Your task to perform on an android device: turn vacation reply on in the gmail app Image 0: 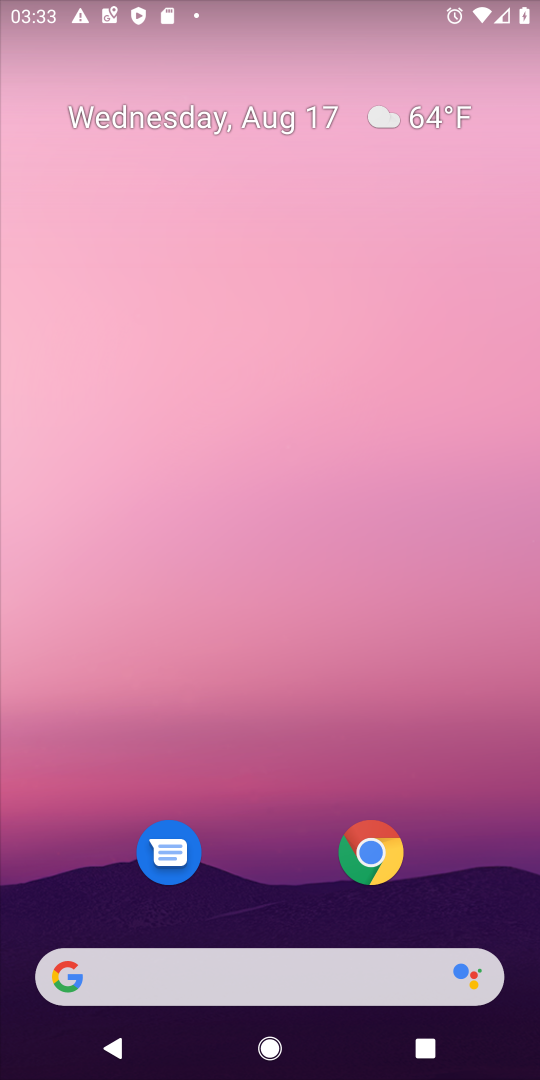
Step 0: drag from (258, 794) to (353, 97)
Your task to perform on an android device: turn vacation reply on in the gmail app Image 1: 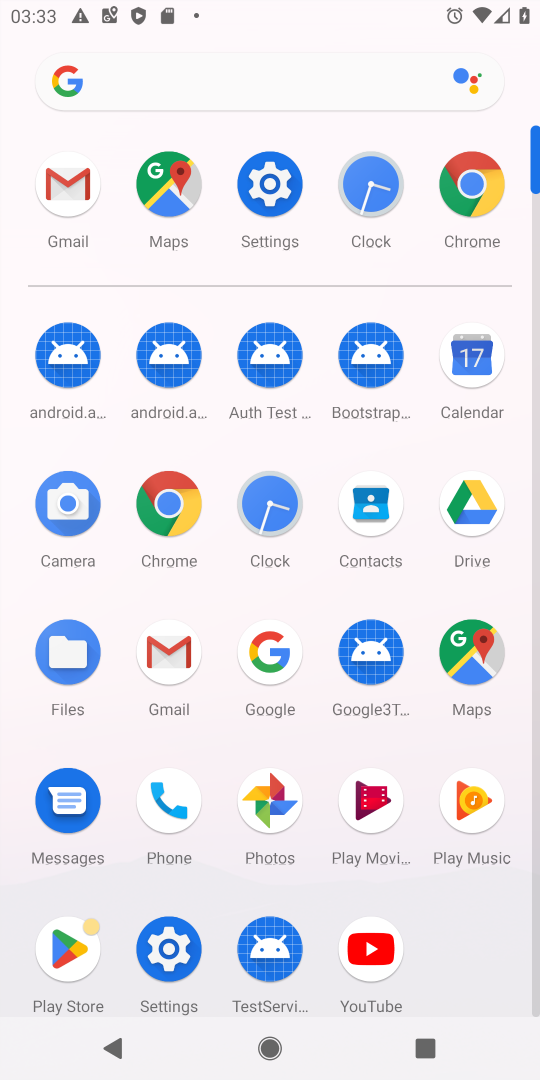
Step 1: click (171, 648)
Your task to perform on an android device: turn vacation reply on in the gmail app Image 2: 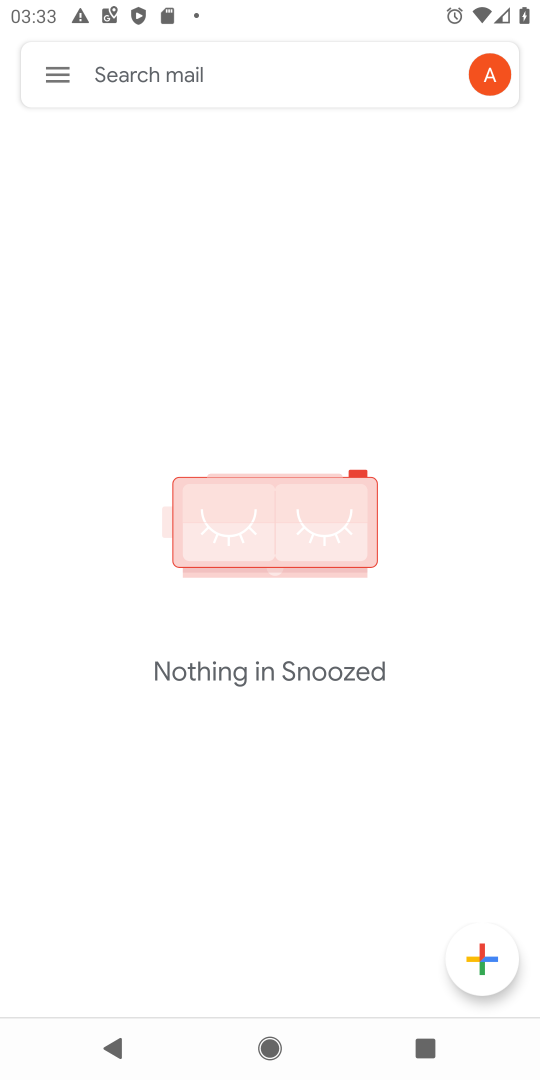
Step 2: click (52, 62)
Your task to perform on an android device: turn vacation reply on in the gmail app Image 3: 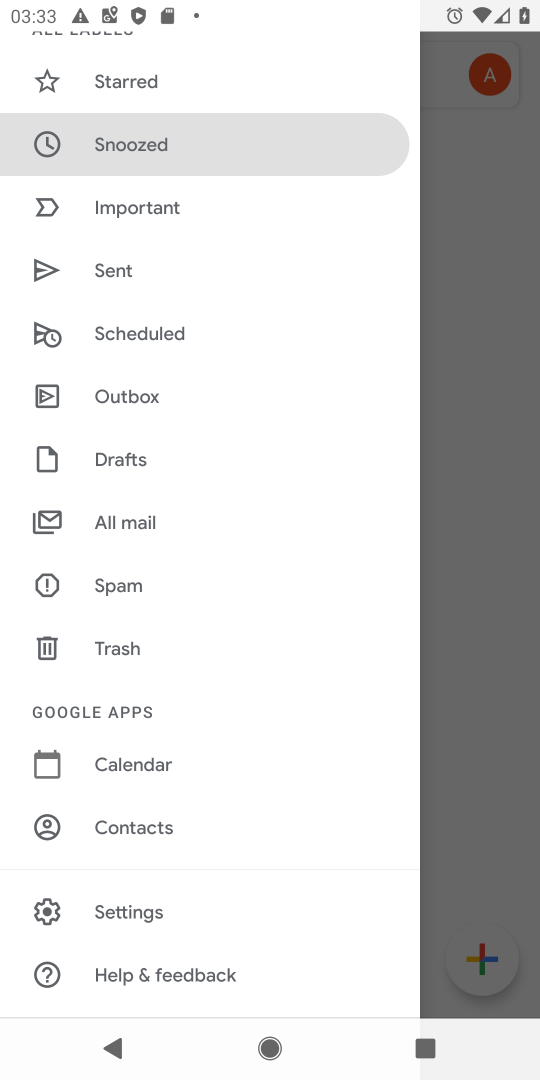
Step 3: click (112, 899)
Your task to perform on an android device: turn vacation reply on in the gmail app Image 4: 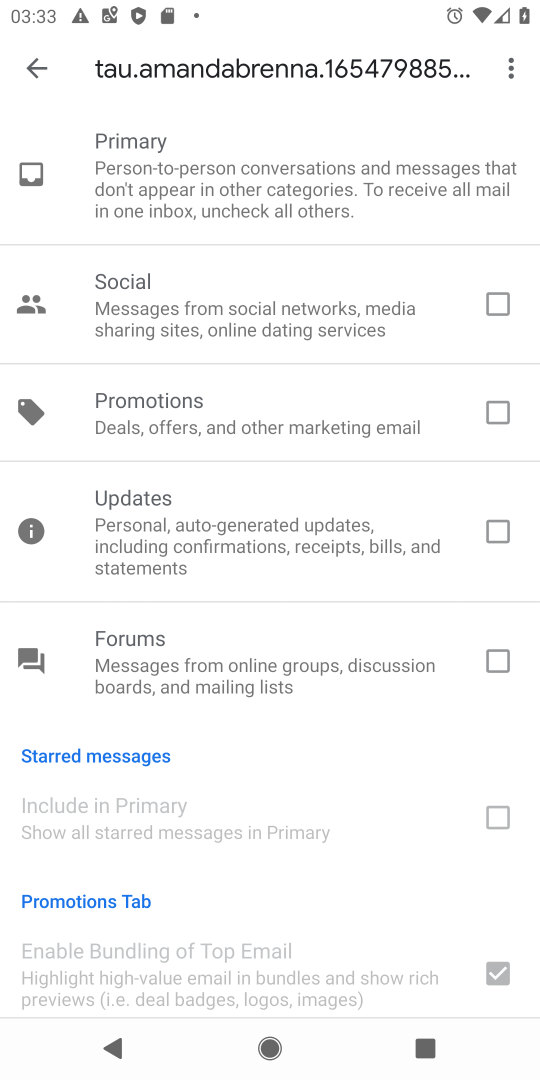
Step 4: drag from (276, 157) to (252, 901)
Your task to perform on an android device: turn vacation reply on in the gmail app Image 5: 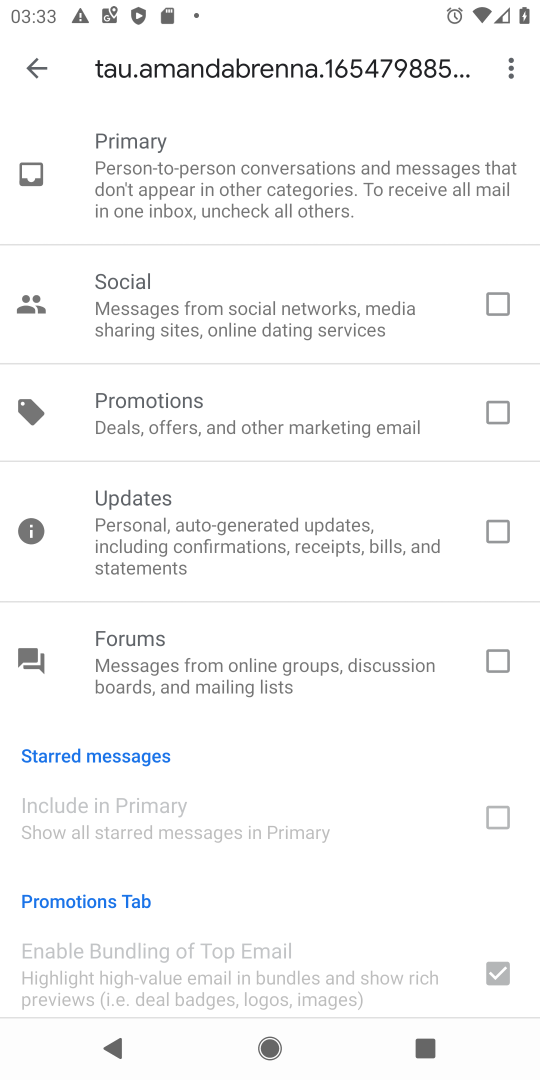
Step 5: click (29, 52)
Your task to perform on an android device: turn vacation reply on in the gmail app Image 6: 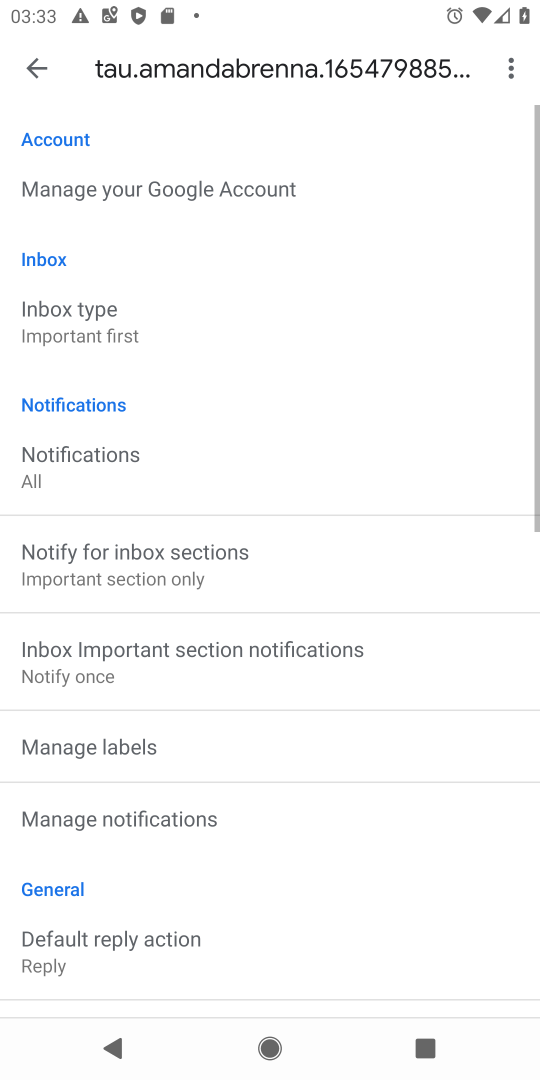
Step 6: drag from (215, 820) to (336, 71)
Your task to perform on an android device: turn vacation reply on in the gmail app Image 7: 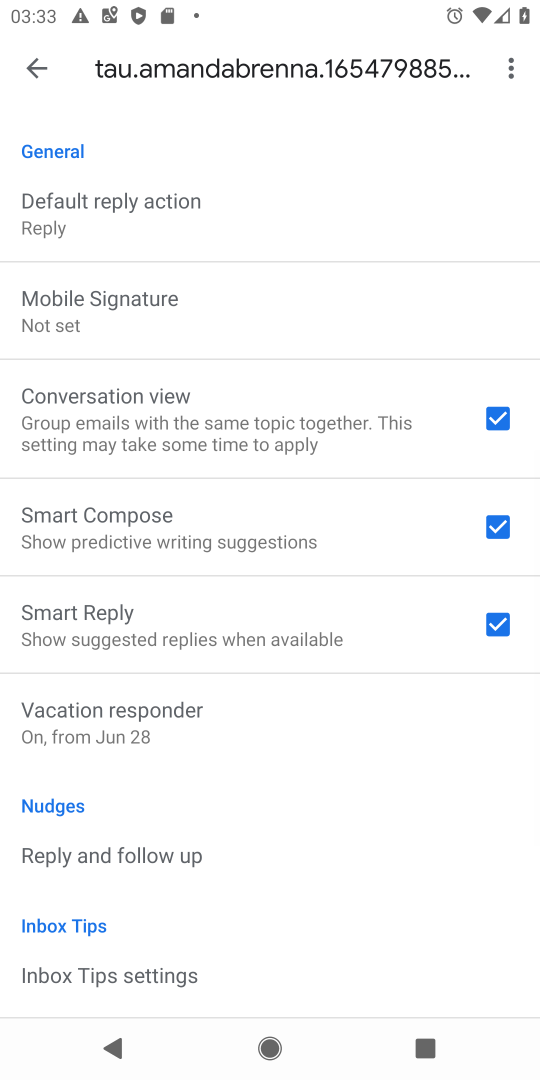
Step 7: drag from (207, 826) to (314, 326)
Your task to perform on an android device: turn vacation reply on in the gmail app Image 8: 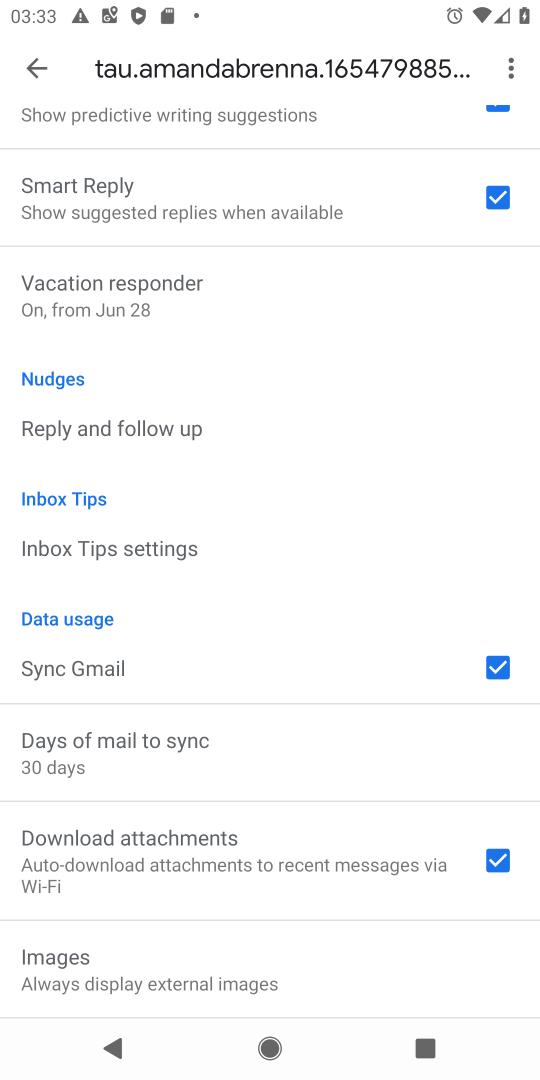
Step 8: drag from (252, 931) to (296, 551)
Your task to perform on an android device: turn vacation reply on in the gmail app Image 9: 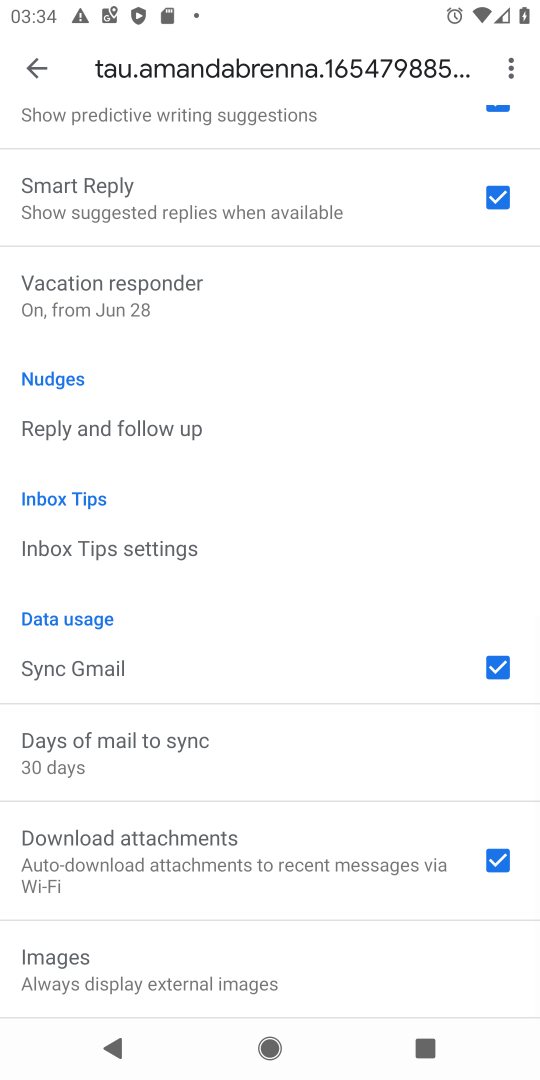
Step 9: click (126, 282)
Your task to perform on an android device: turn vacation reply on in the gmail app Image 10: 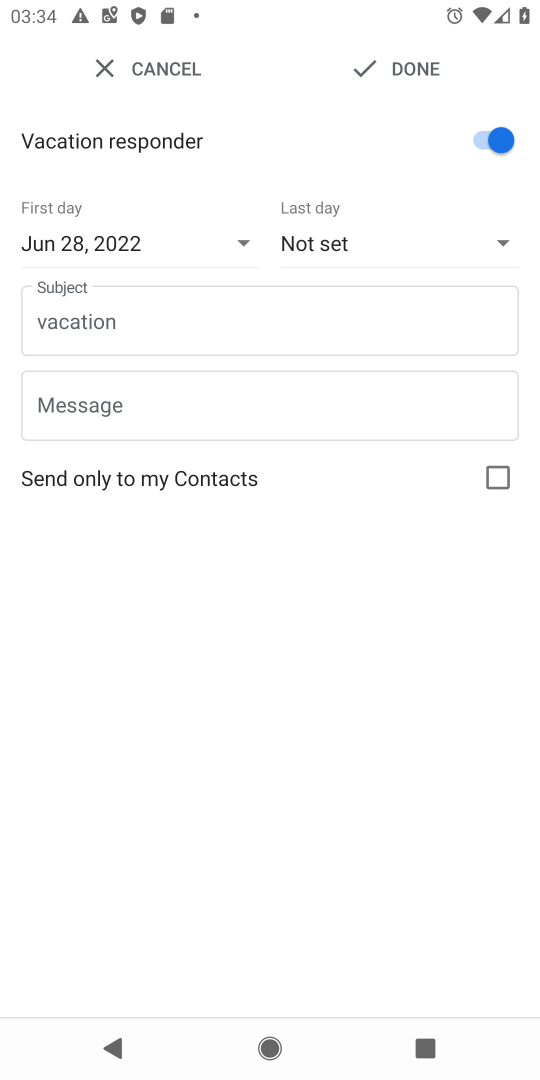
Step 10: task complete